Your task to perform on an android device: Clear all items from cart on costco.com. Image 0: 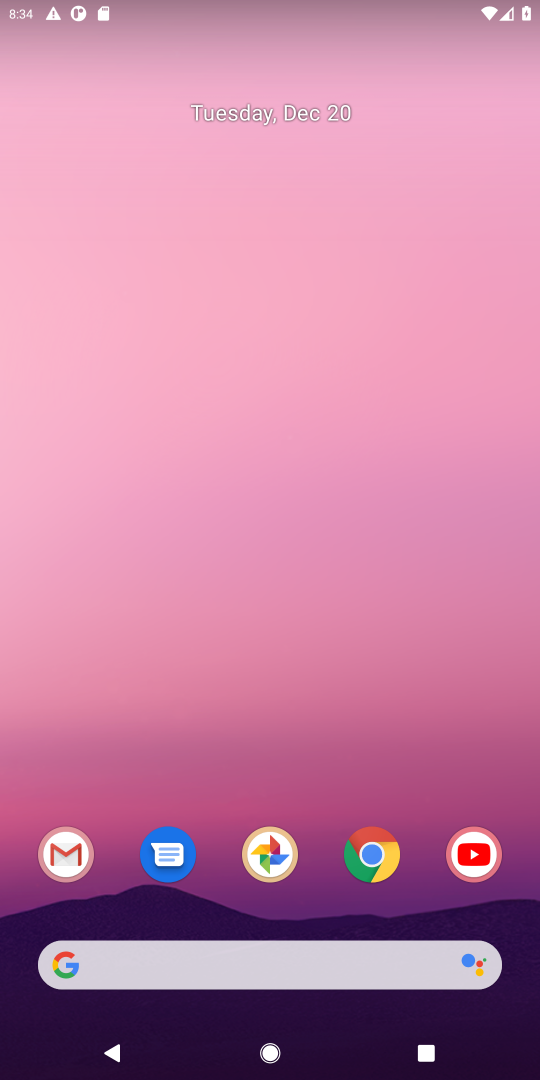
Step 0: click (370, 863)
Your task to perform on an android device: Clear all items from cart on costco.com. Image 1: 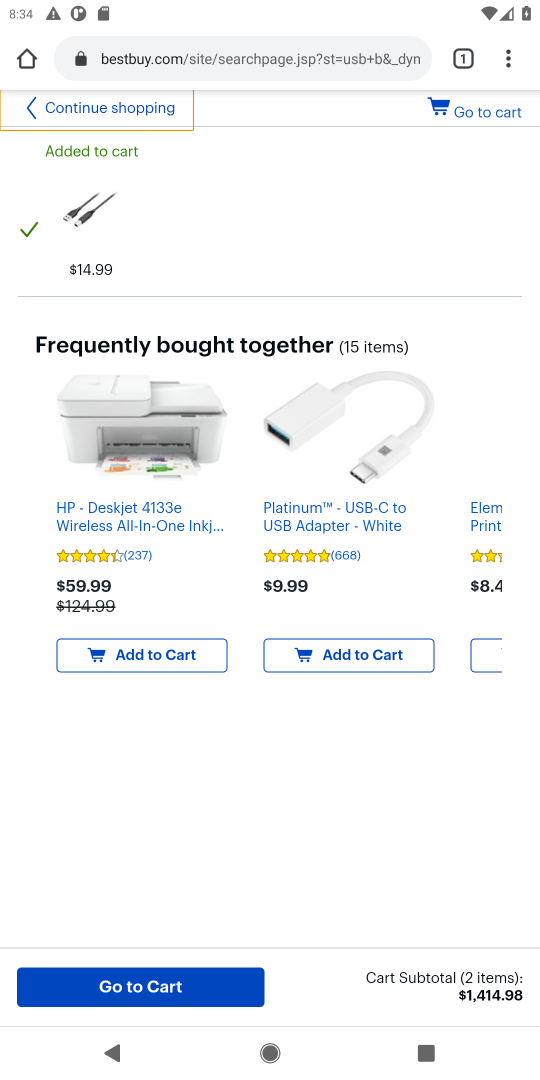
Step 1: click (155, 56)
Your task to perform on an android device: Clear all items from cart on costco.com. Image 2: 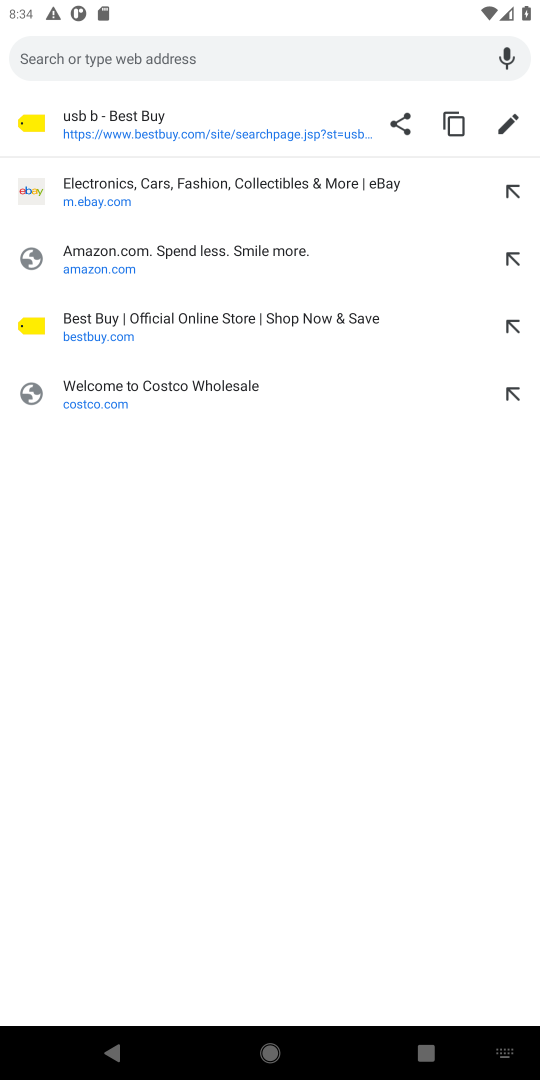
Step 2: click (107, 397)
Your task to perform on an android device: Clear all items from cart on costco.com. Image 3: 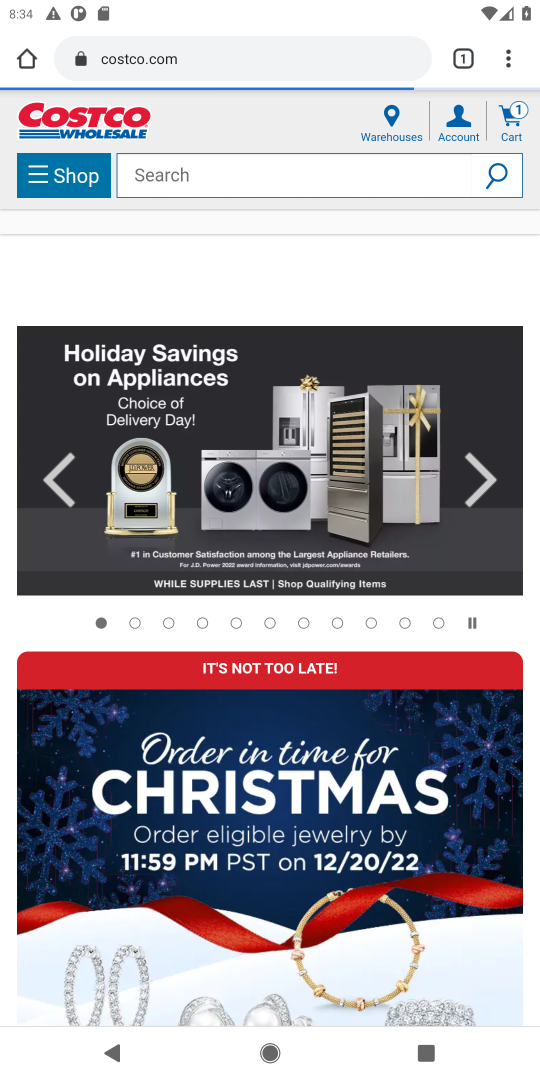
Step 3: click (509, 118)
Your task to perform on an android device: Clear all items from cart on costco.com. Image 4: 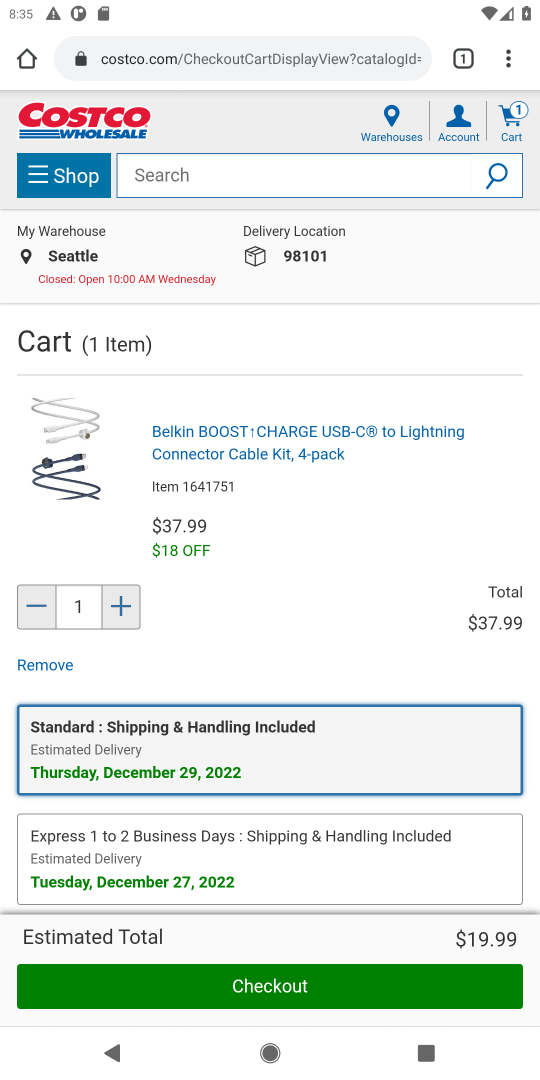
Step 4: drag from (297, 851) to (318, 486)
Your task to perform on an android device: Clear all items from cart on costco.com. Image 5: 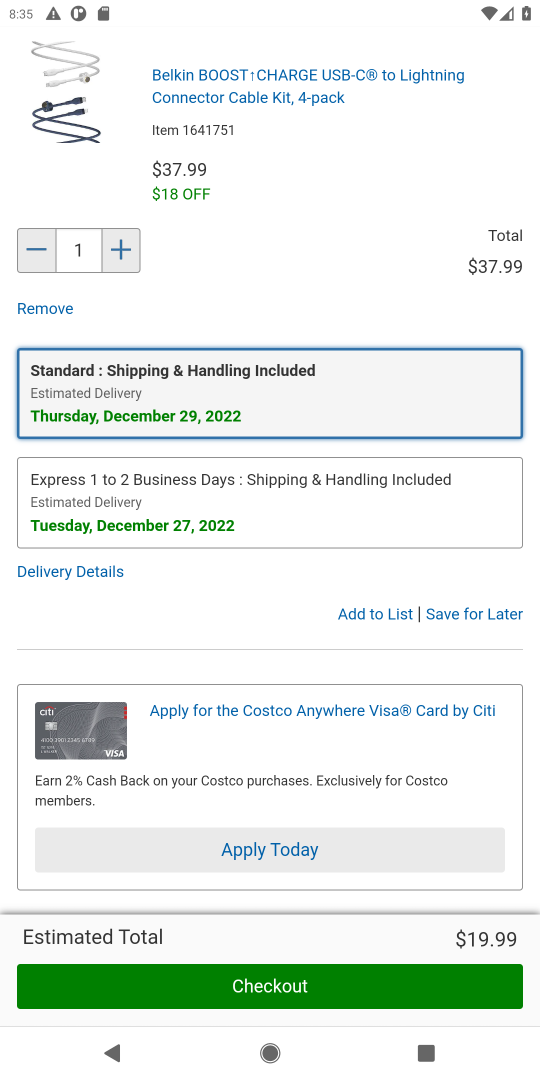
Step 5: click (481, 619)
Your task to perform on an android device: Clear all items from cart on costco.com. Image 6: 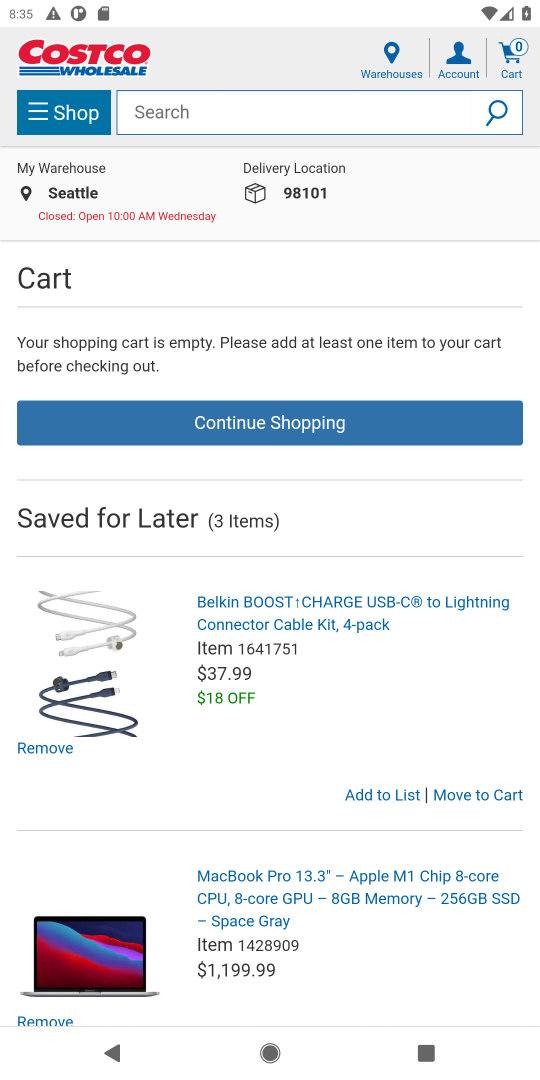
Step 6: task complete